Your task to perform on an android device: turn off picture-in-picture Image 0: 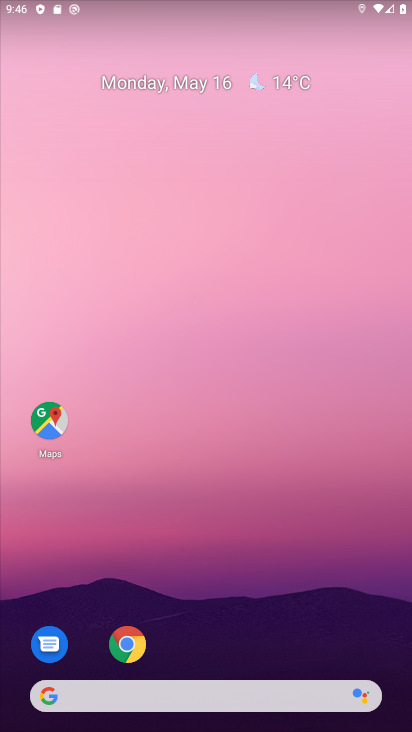
Step 0: click (130, 651)
Your task to perform on an android device: turn off picture-in-picture Image 1: 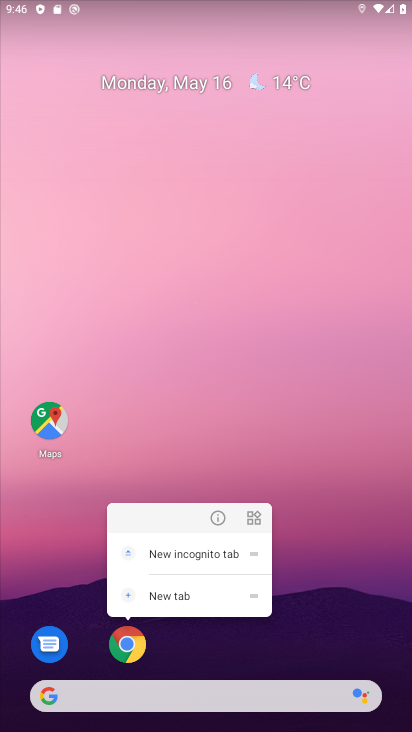
Step 1: click (217, 514)
Your task to perform on an android device: turn off picture-in-picture Image 2: 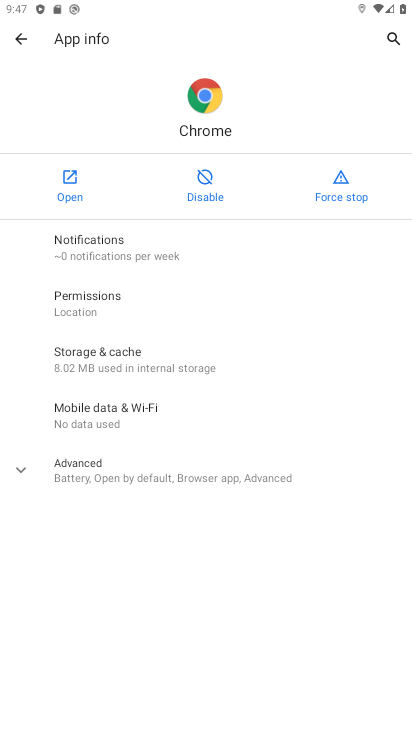
Step 2: click (150, 481)
Your task to perform on an android device: turn off picture-in-picture Image 3: 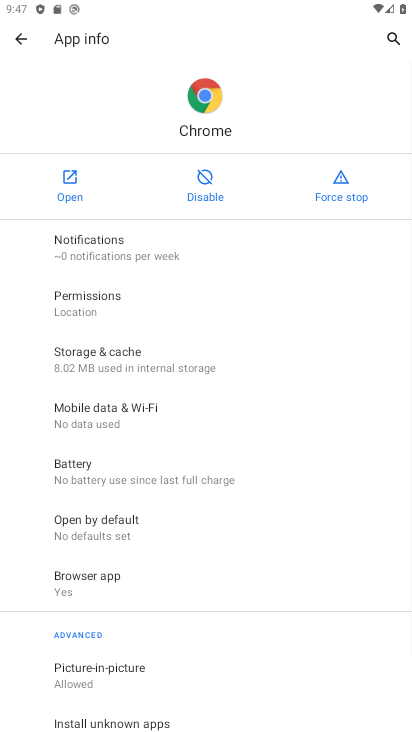
Step 3: drag from (271, 602) to (285, 1)
Your task to perform on an android device: turn off picture-in-picture Image 4: 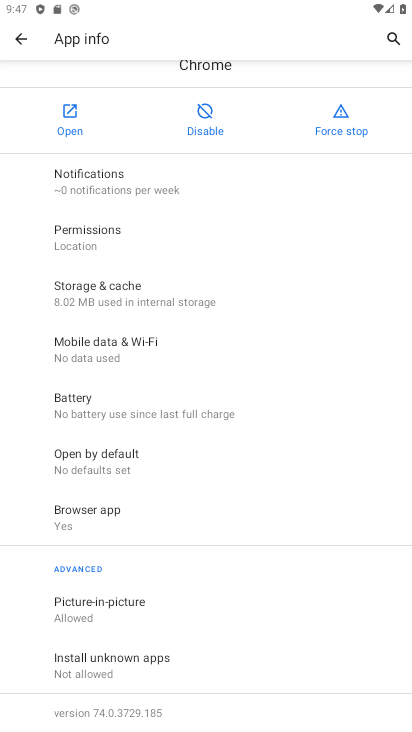
Step 4: click (118, 618)
Your task to perform on an android device: turn off picture-in-picture Image 5: 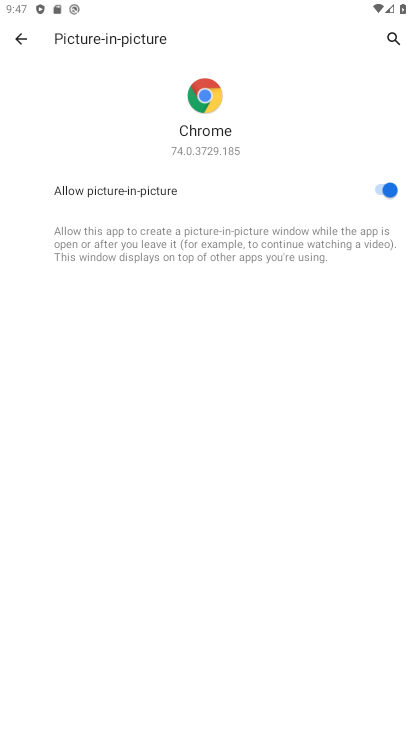
Step 5: click (389, 187)
Your task to perform on an android device: turn off picture-in-picture Image 6: 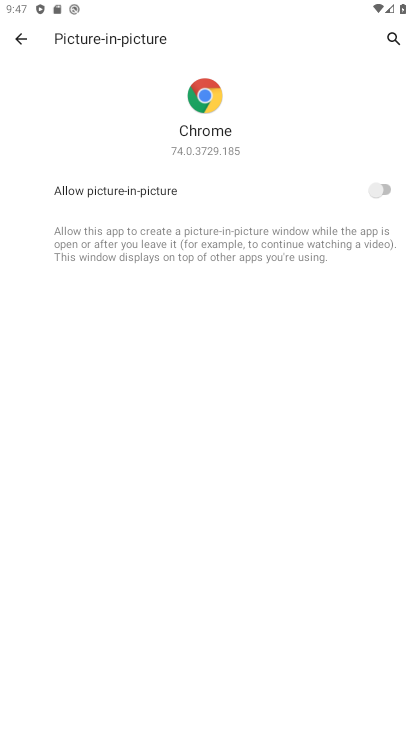
Step 6: task complete